Your task to perform on an android device: set the stopwatch Image 0: 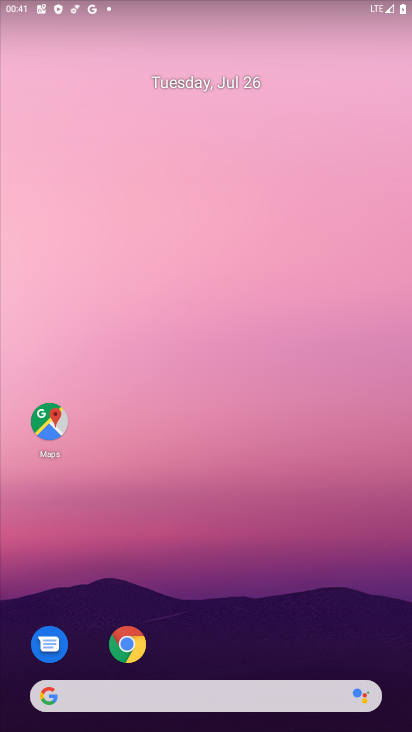
Step 0: drag from (255, 667) to (266, 59)
Your task to perform on an android device: set the stopwatch Image 1: 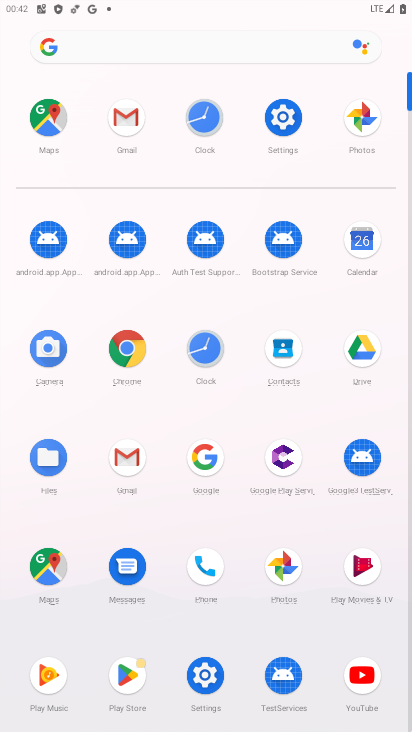
Step 1: click (206, 356)
Your task to perform on an android device: set the stopwatch Image 2: 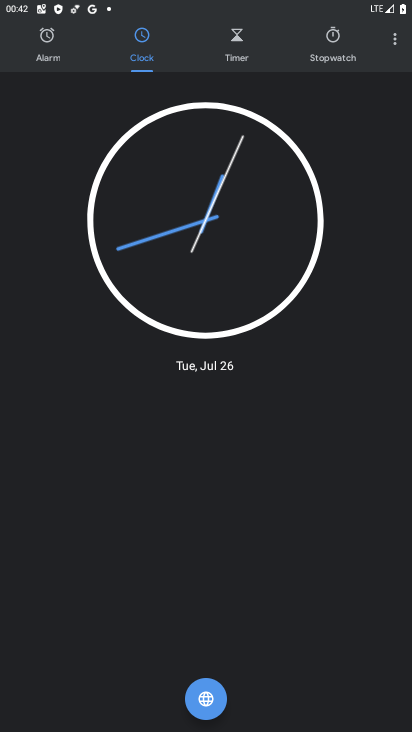
Step 2: click (325, 60)
Your task to perform on an android device: set the stopwatch Image 3: 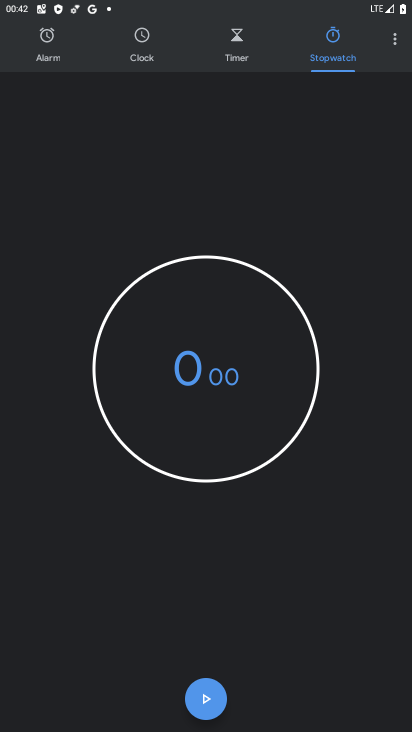
Step 3: click (204, 699)
Your task to perform on an android device: set the stopwatch Image 4: 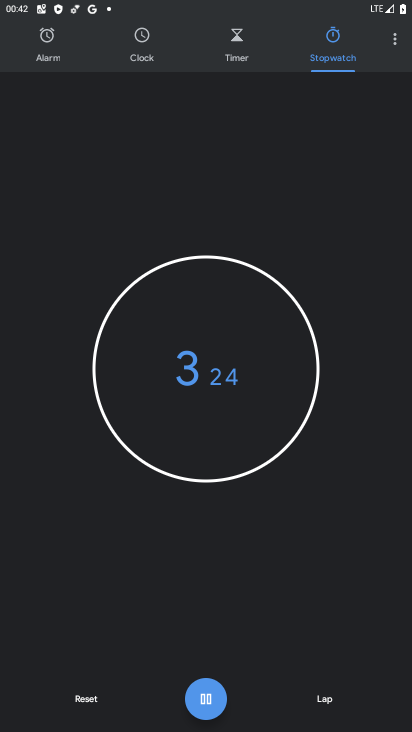
Step 4: click (204, 699)
Your task to perform on an android device: set the stopwatch Image 5: 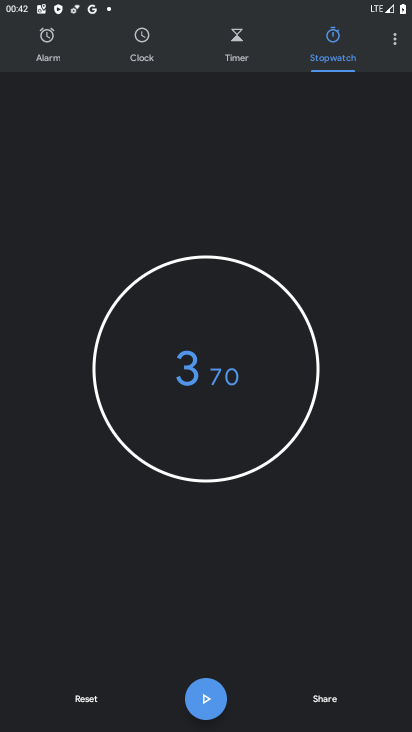
Step 5: task complete